Your task to perform on an android device: Turn off the flashlight Image 0: 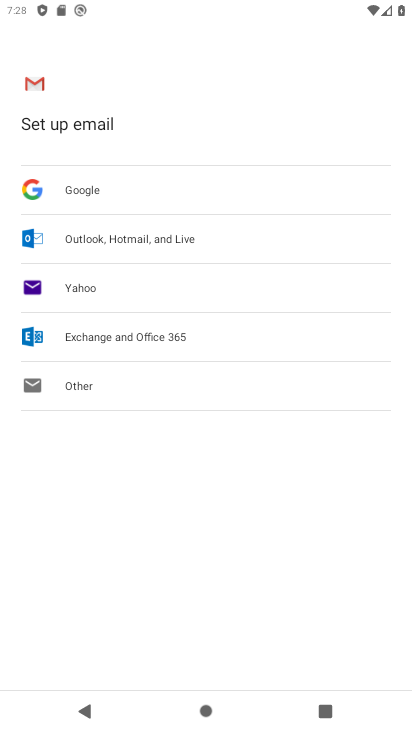
Step 0: press home button
Your task to perform on an android device: Turn off the flashlight Image 1: 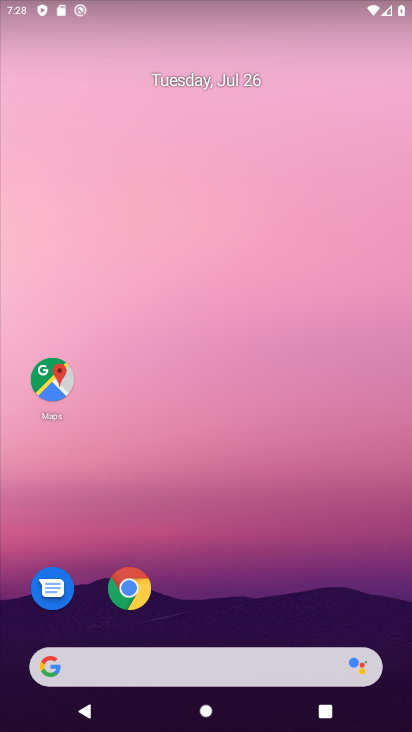
Step 1: task complete